Your task to perform on an android device: change the clock display to analog Image 0: 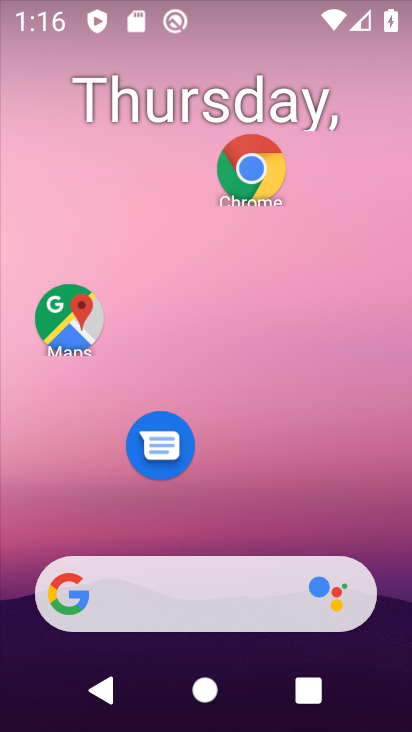
Step 0: drag from (241, 630) to (327, 87)
Your task to perform on an android device: change the clock display to analog Image 1: 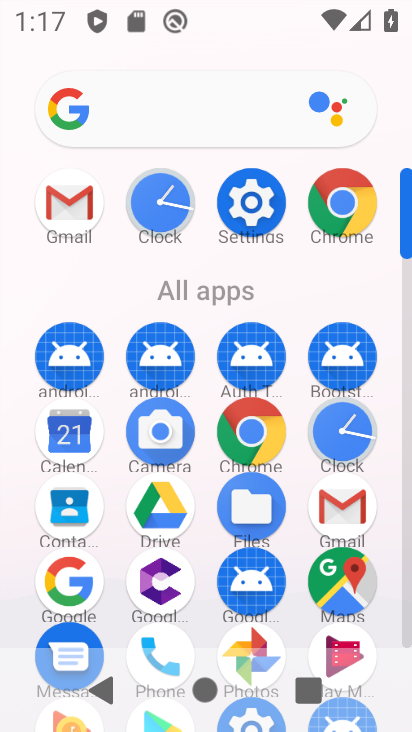
Step 1: click (344, 427)
Your task to perform on an android device: change the clock display to analog Image 2: 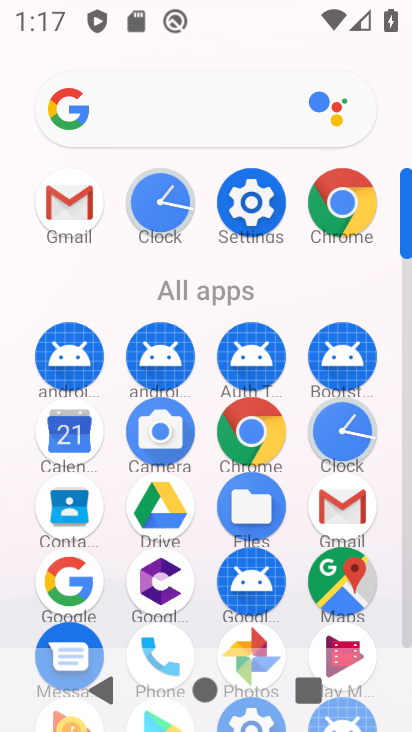
Step 2: click (344, 427)
Your task to perform on an android device: change the clock display to analog Image 3: 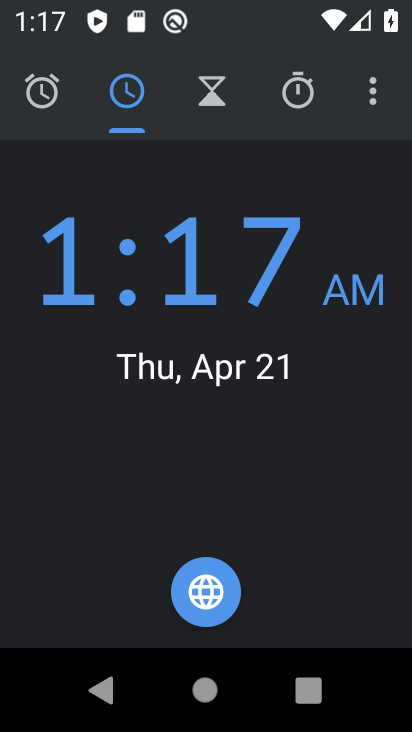
Step 3: click (374, 107)
Your task to perform on an android device: change the clock display to analog Image 4: 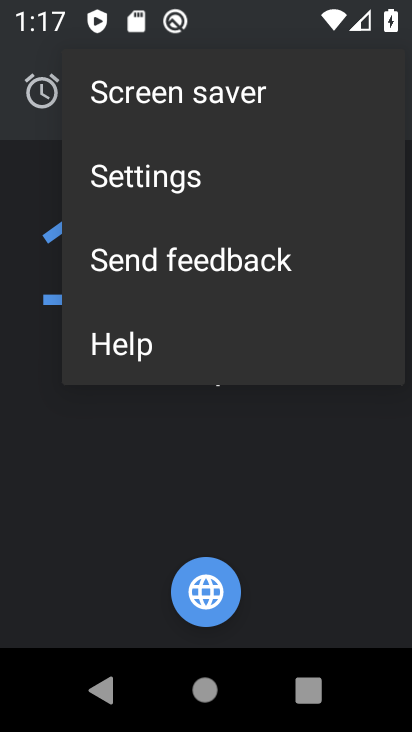
Step 4: click (195, 172)
Your task to perform on an android device: change the clock display to analog Image 5: 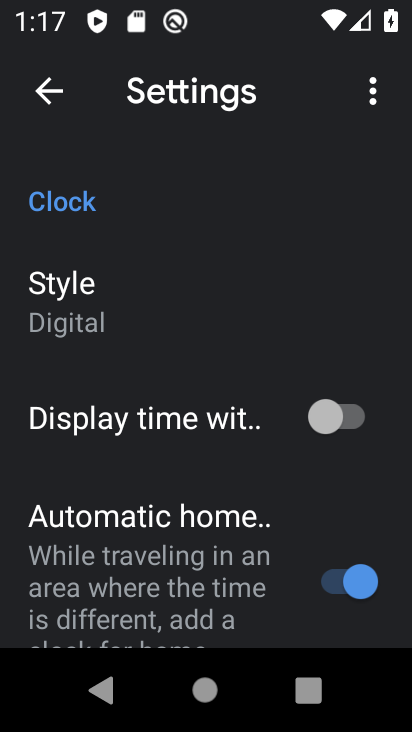
Step 5: click (124, 302)
Your task to perform on an android device: change the clock display to analog Image 6: 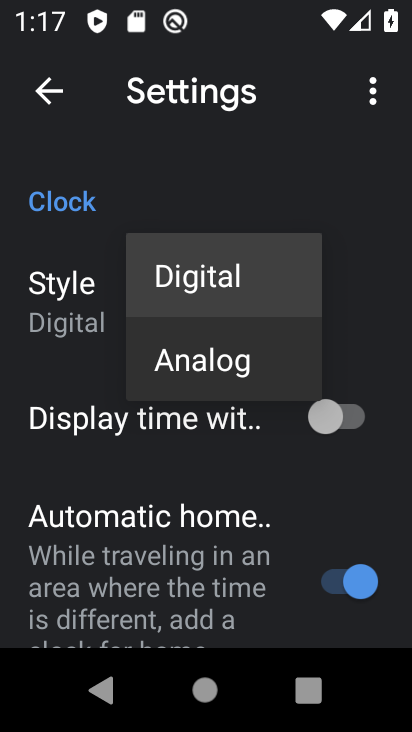
Step 6: click (205, 373)
Your task to perform on an android device: change the clock display to analog Image 7: 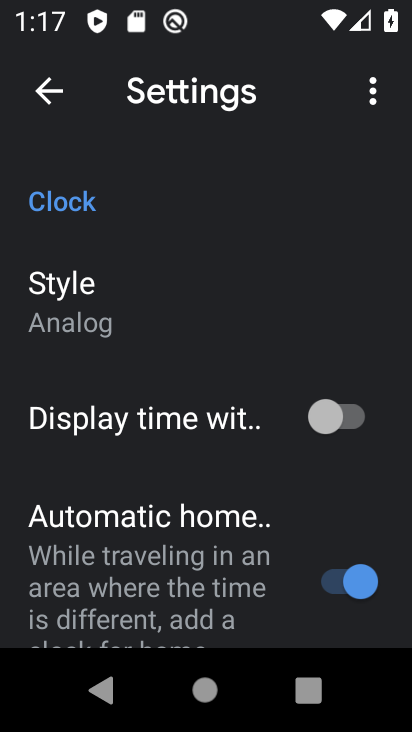
Step 7: task complete